Your task to perform on an android device: open app "Instagram" (install if not already installed) and enter user name: "nobler@yahoo.com" and password: "foraging" Image 0: 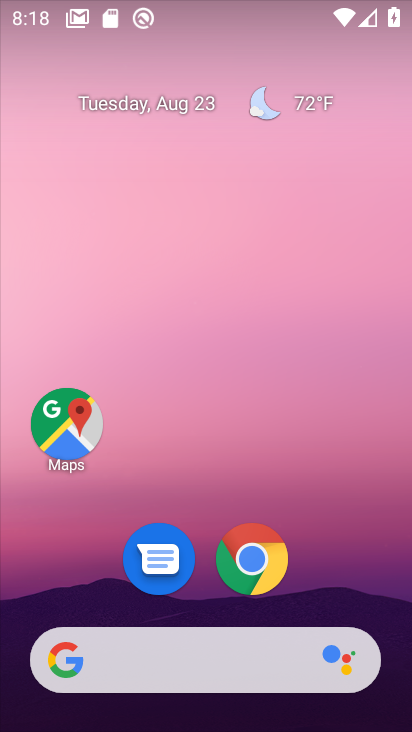
Step 0: drag from (223, 293) to (247, 121)
Your task to perform on an android device: open app "Instagram" (install if not already installed) and enter user name: "nobler@yahoo.com" and password: "foraging" Image 1: 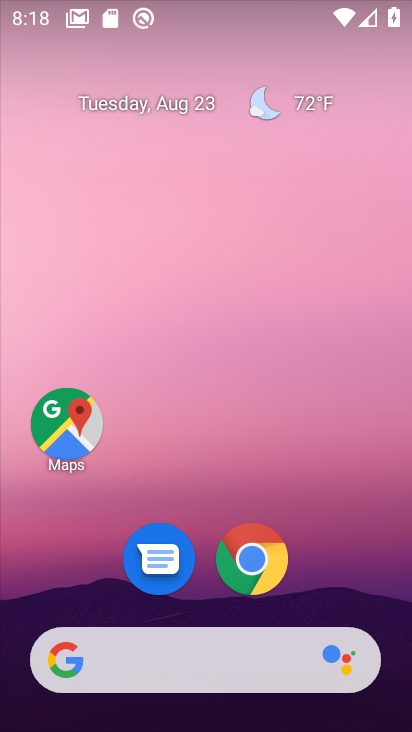
Step 1: drag from (206, 489) to (151, 79)
Your task to perform on an android device: open app "Instagram" (install if not already installed) and enter user name: "nobler@yahoo.com" and password: "foraging" Image 2: 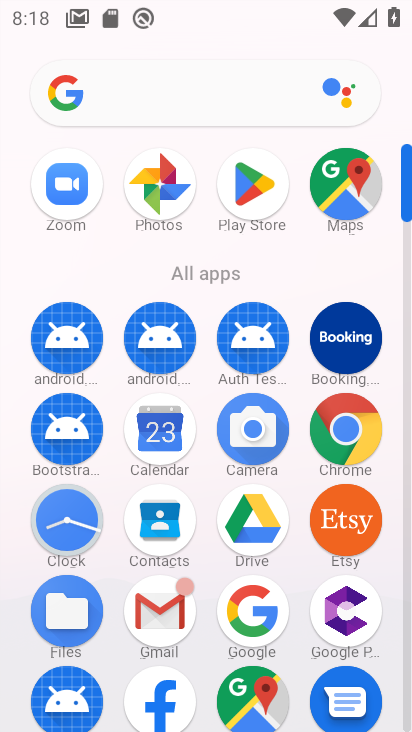
Step 2: click (247, 206)
Your task to perform on an android device: open app "Instagram" (install if not already installed) and enter user name: "nobler@yahoo.com" and password: "foraging" Image 3: 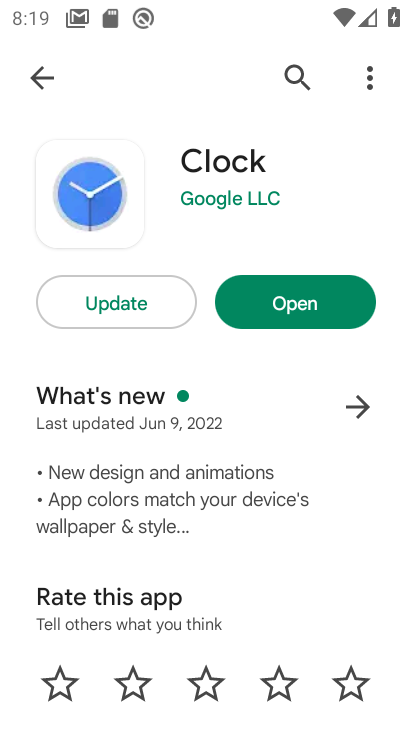
Step 3: click (302, 86)
Your task to perform on an android device: open app "Instagram" (install if not already installed) and enter user name: "nobler@yahoo.com" and password: "foraging" Image 4: 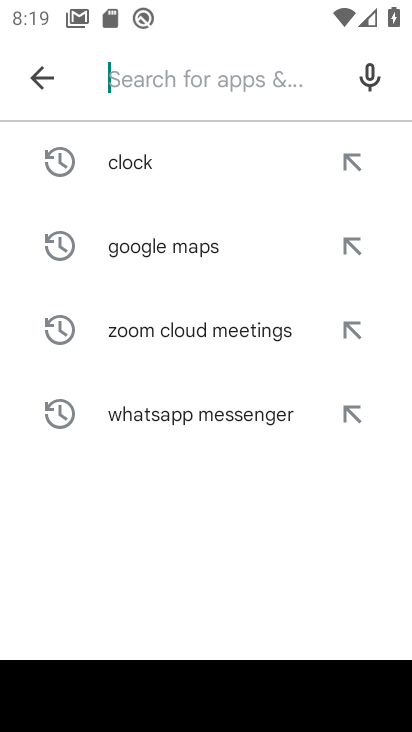
Step 4: type "Instagram"
Your task to perform on an android device: open app "Instagram" (install if not already installed) and enter user name: "nobler@yahoo.com" and password: "foraging" Image 5: 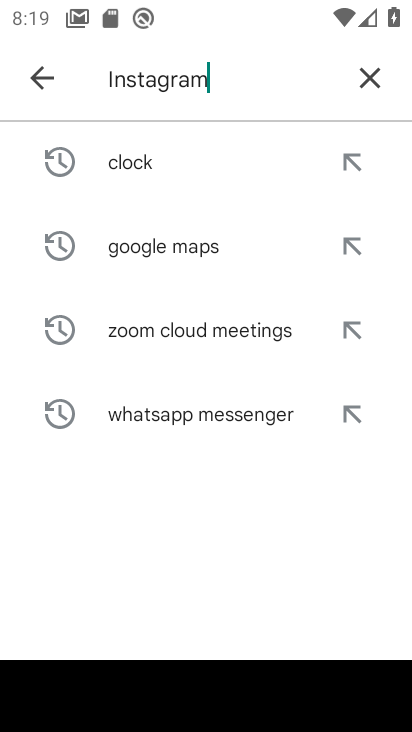
Step 5: type ""
Your task to perform on an android device: open app "Instagram" (install if not already installed) and enter user name: "nobler@yahoo.com" and password: "foraging" Image 6: 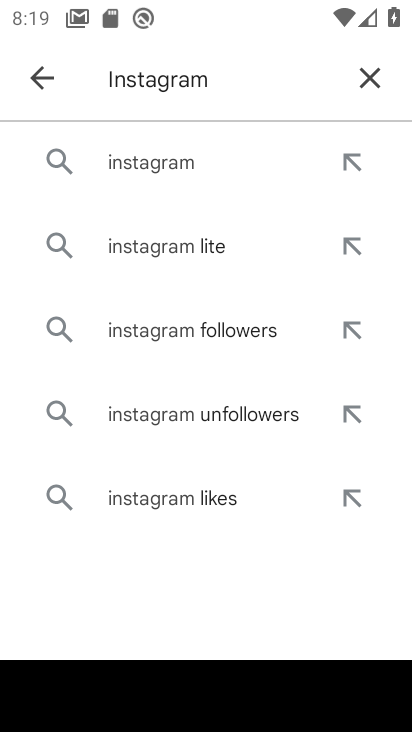
Step 6: click (181, 162)
Your task to perform on an android device: open app "Instagram" (install if not already installed) and enter user name: "nobler@yahoo.com" and password: "foraging" Image 7: 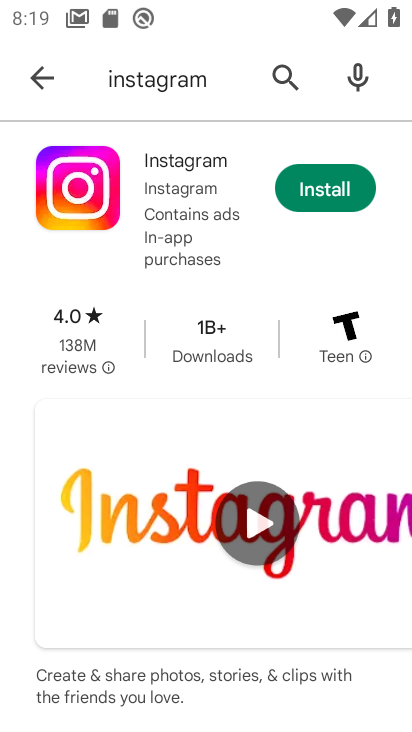
Step 7: click (309, 201)
Your task to perform on an android device: open app "Instagram" (install if not already installed) and enter user name: "nobler@yahoo.com" and password: "foraging" Image 8: 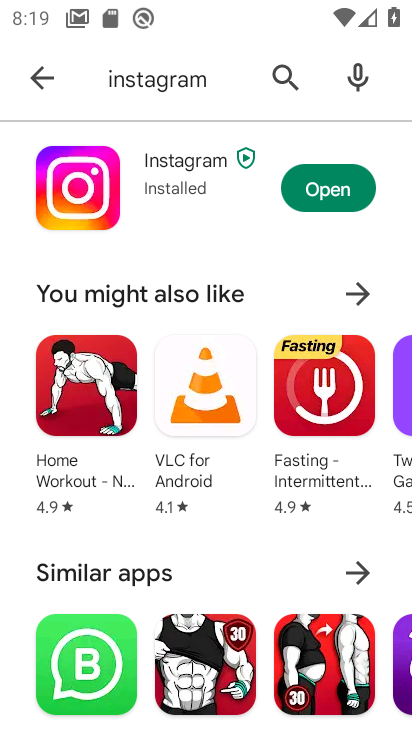
Step 8: click (313, 204)
Your task to perform on an android device: open app "Instagram" (install if not already installed) and enter user name: "nobler@yahoo.com" and password: "foraging" Image 9: 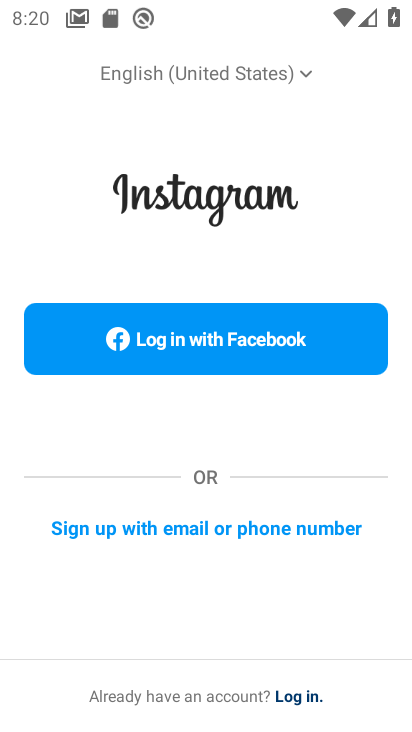
Step 9: task complete